Your task to perform on an android device: Open eBay Image 0: 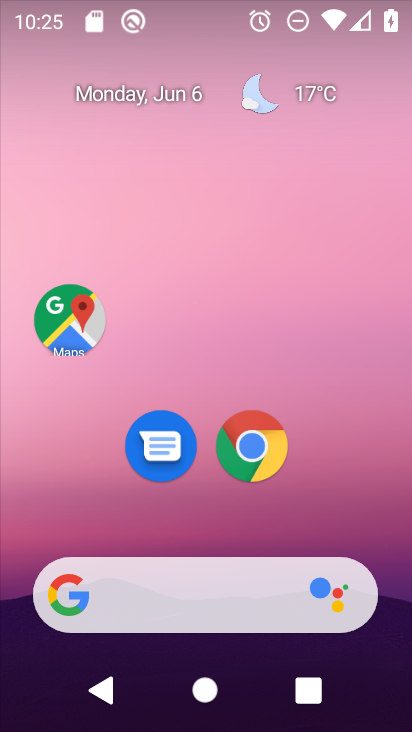
Step 0: click (252, 468)
Your task to perform on an android device: Open eBay Image 1: 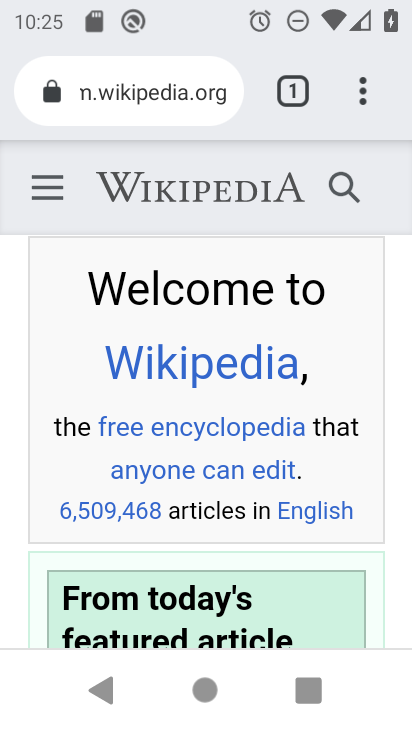
Step 1: click (369, 106)
Your task to perform on an android device: Open eBay Image 2: 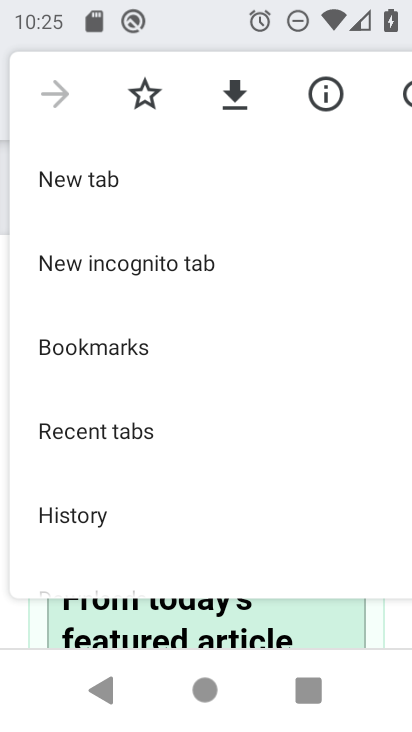
Step 2: click (94, 194)
Your task to perform on an android device: Open eBay Image 3: 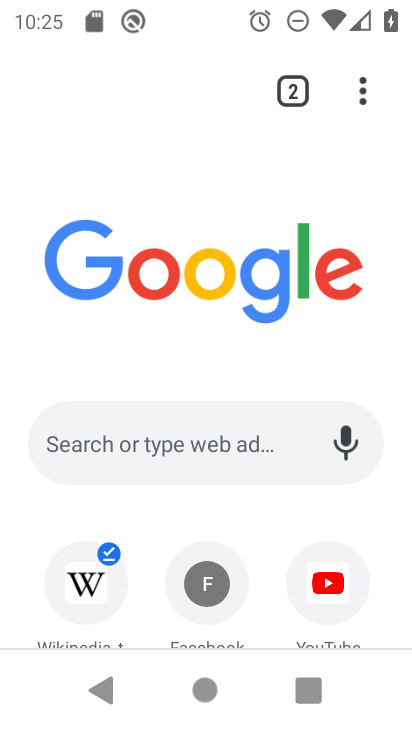
Step 3: drag from (148, 580) to (188, 147)
Your task to perform on an android device: Open eBay Image 4: 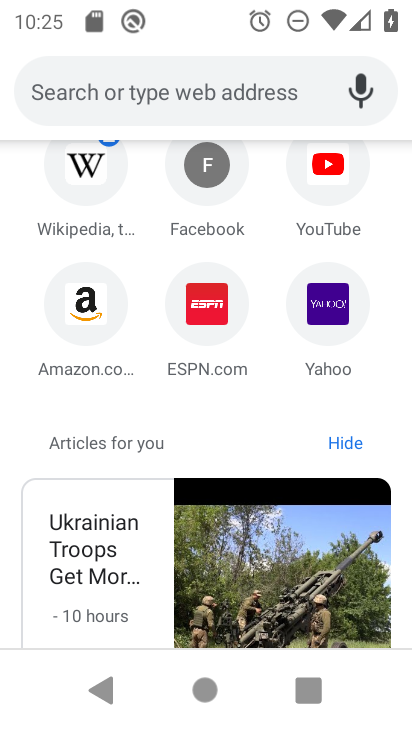
Step 4: click (178, 106)
Your task to perform on an android device: Open eBay Image 5: 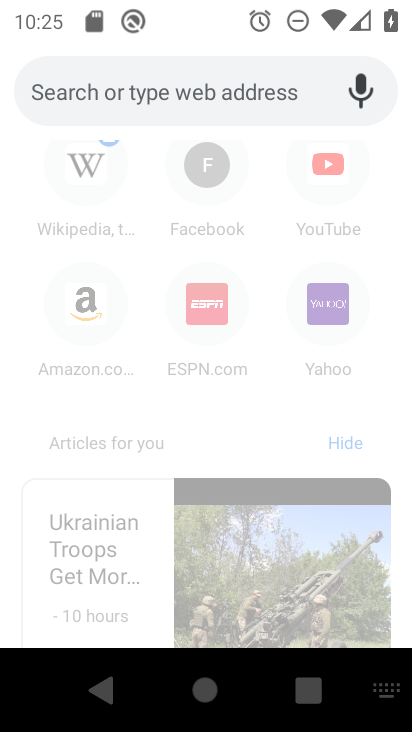
Step 5: type "ebay"
Your task to perform on an android device: Open eBay Image 6: 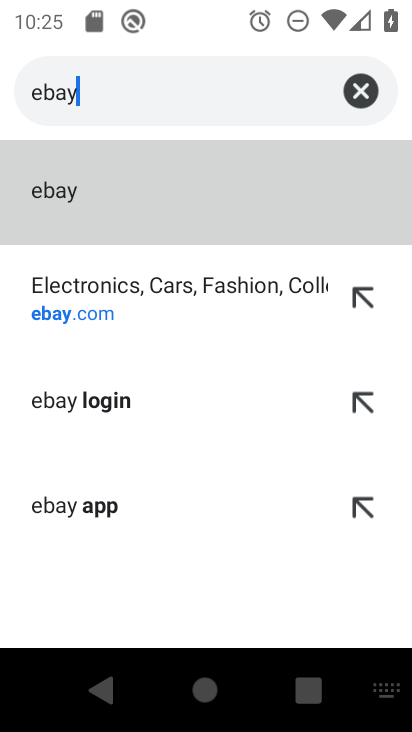
Step 6: click (149, 268)
Your task to perform on an android device: Open eBay Image 7: 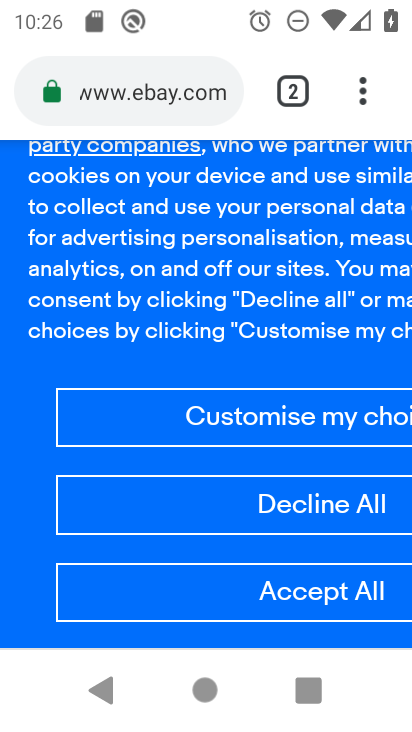
Step 7: task complete